Your task to perform on an android device: Go to Reddit.com Image 0: 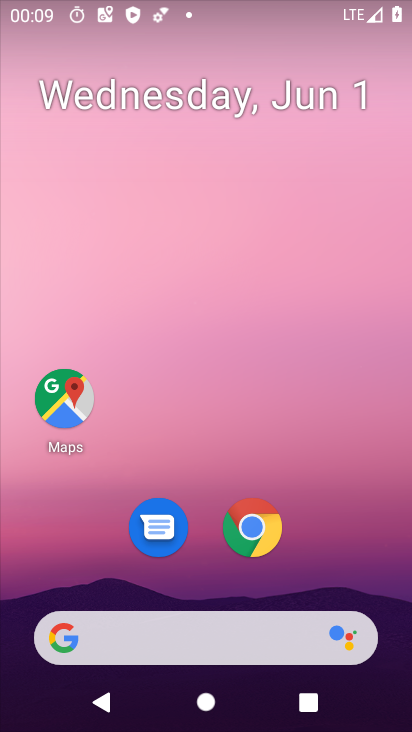
Step 0: click (316, 24)
Your task to perform on an android device: Go to Reddit.com Image 1: 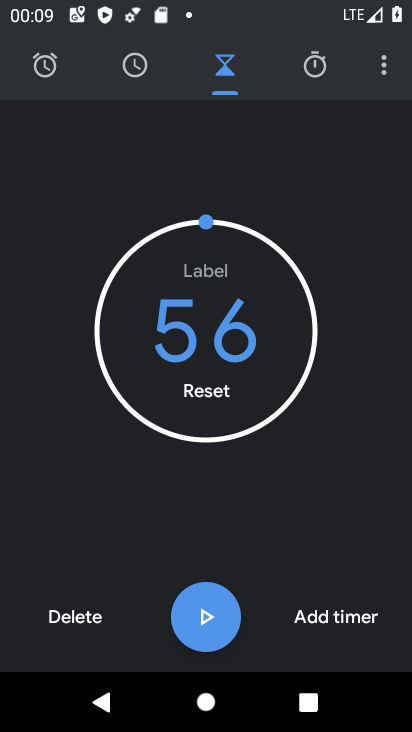
Step 1: press home button
Your task to perform on an android device: Go to Reddit.com Image 2: 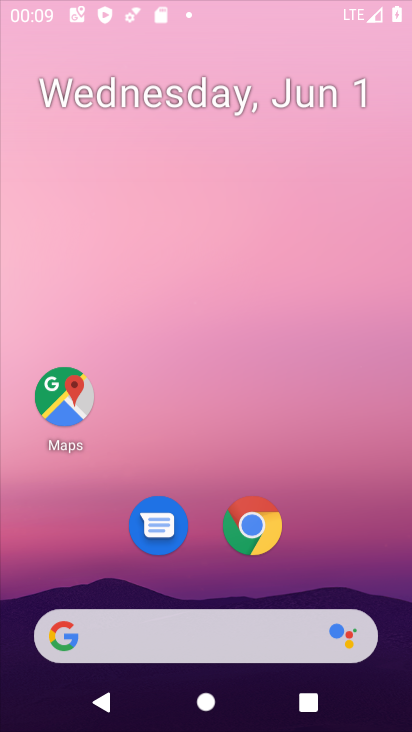
Step 2: drag from (228, 516) to (268, 53)
Your task to perform on an android device: Go to Reddit.com Image 3: 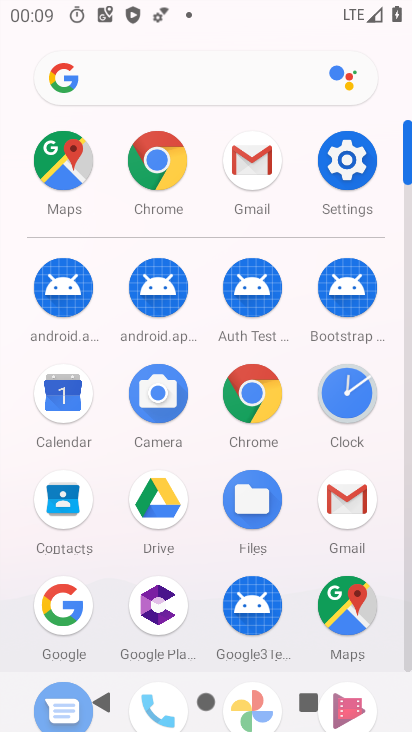
Step 3: drag from (218, 540) to (252, 32)
Your task to perform on an android device: Go to Reddit.com Image 4: 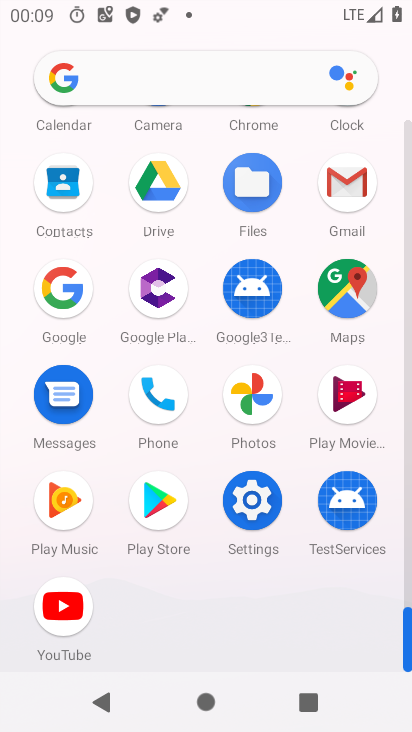
Step 4: click (133, 86)
Your task to perform on an android device: Go to Reddit.com Image 5: 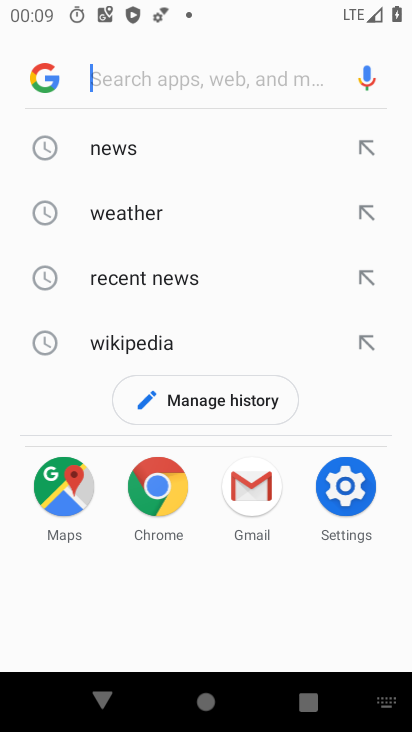
Step 5: type "Reddit.com"
Your task to perform on an android device: Go to Reddit.com Image 6: 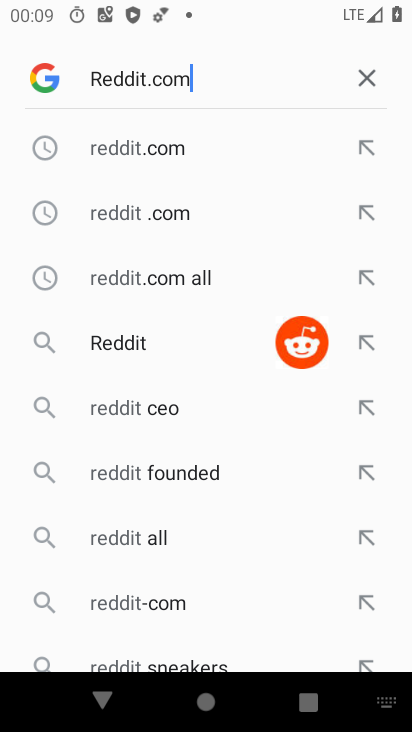
Step 6: type ""
Your task to perform on an android device: Go to Reddit.com Image 7: 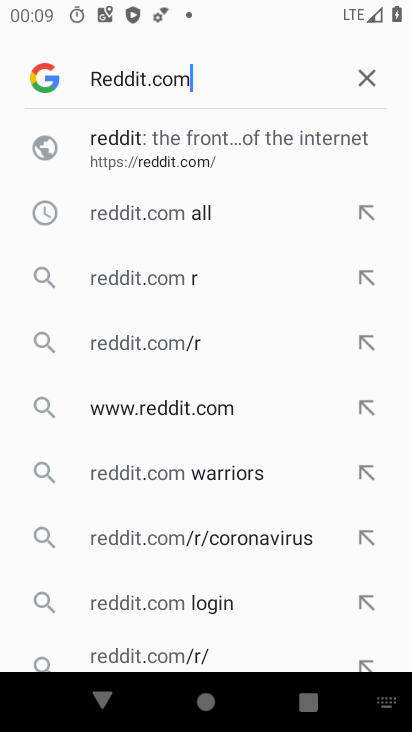
Step 7: click (109, 128)
Your task to perform on an android device: Go to Reddit.com Image 8: 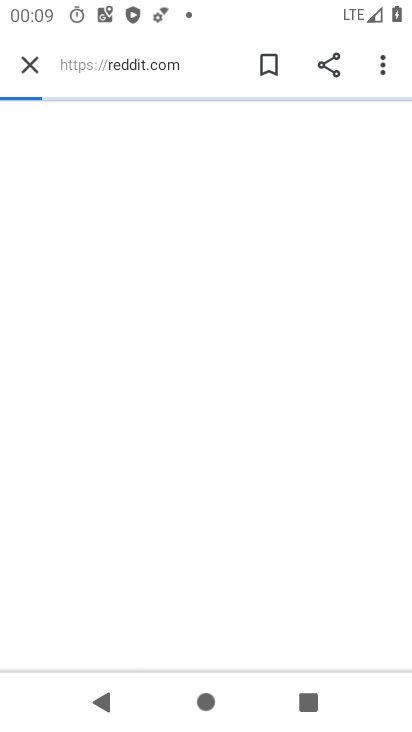
Step 8: task complete